Your task to perform on an android device: Search for a coffee table on Crate & Barrel Image 0: 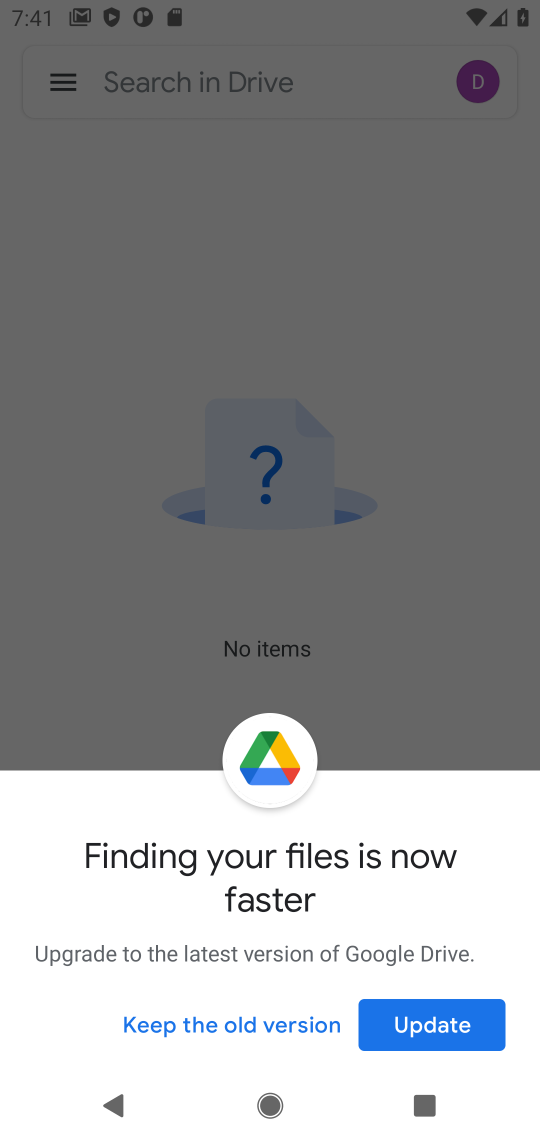
Step 0: press home button
Your task to perform on an android device: Search for a coffee table on Crate & Barrel Image 1: 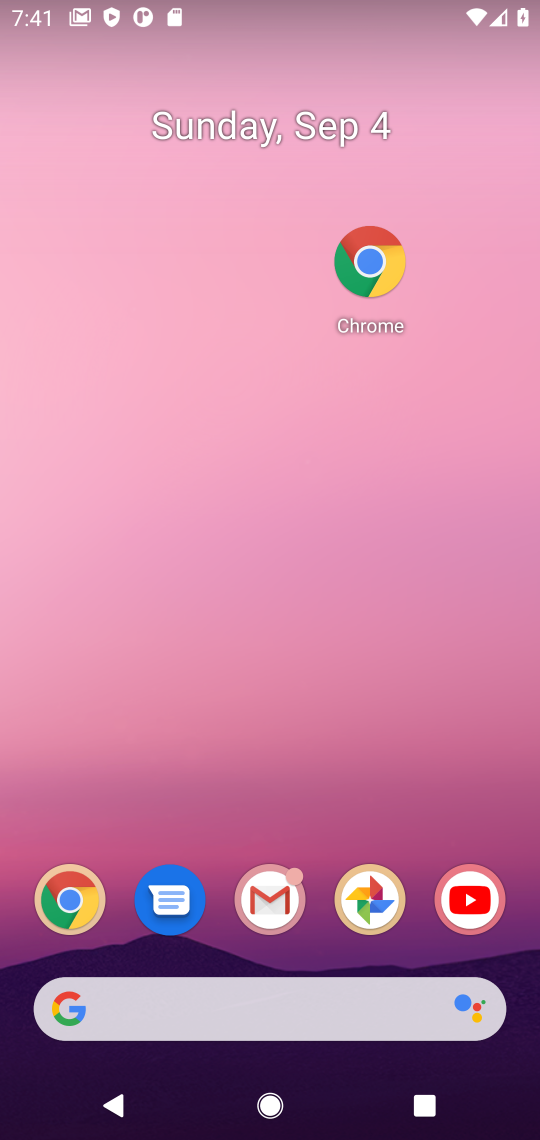
Step 1: click (367, 250)
Your task to perform on an android device: Search for a coffee table on Crate & Barrel Image 2: 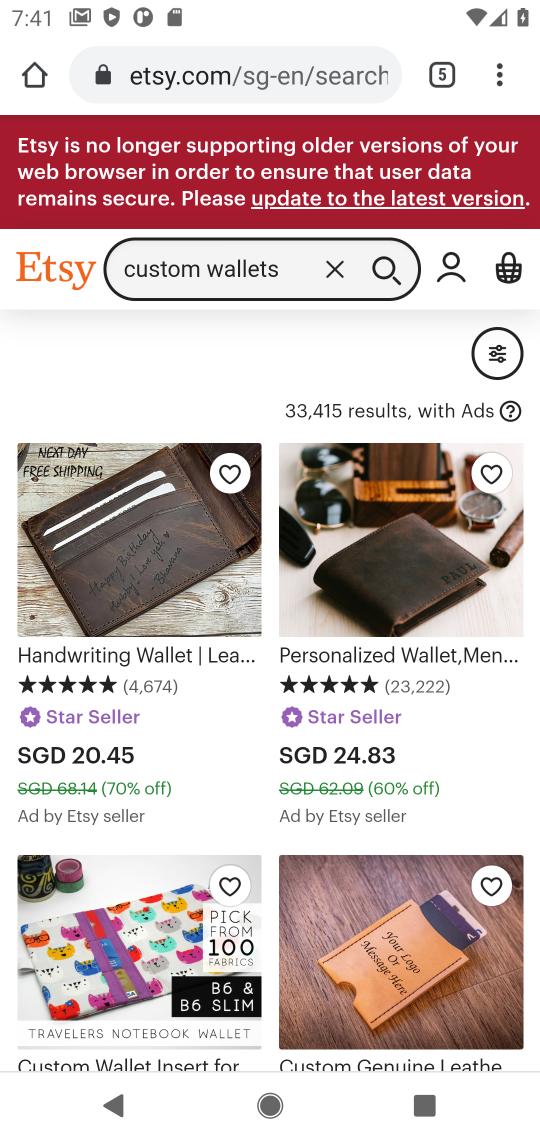
Step 2: click (433, 63)
Your task to perform on an android device: Search for a coffee table on Crate & Barrel Image 3: 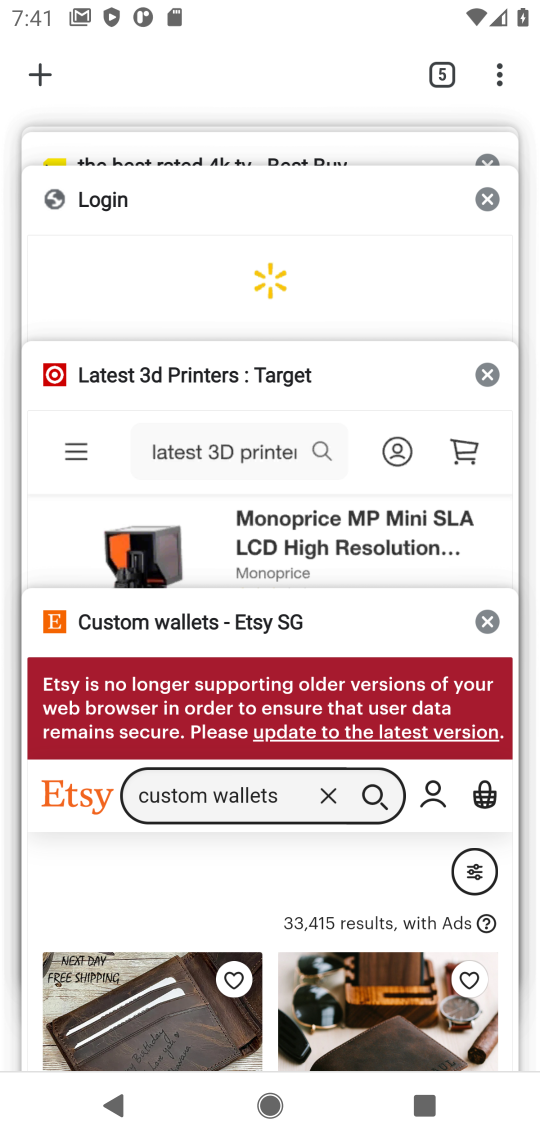
Step 3: click (33, 75)
Your task to perform on an android device: Search for a coffee table on Crate & Barrel Image 4: 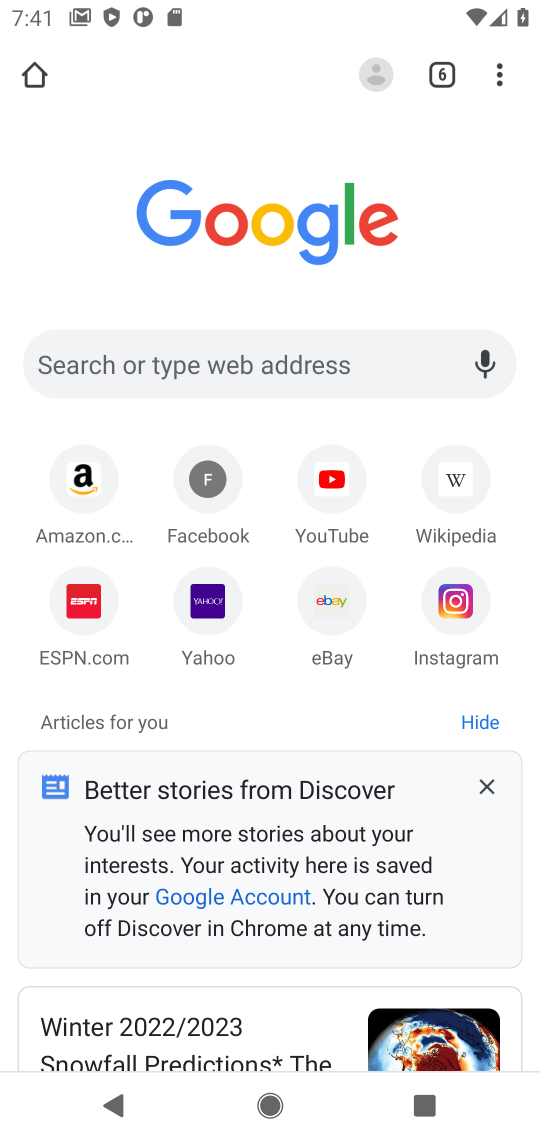
Step 4: click (188, 342)
Your task to perform on an android device: Search for a coffee table on Crate & Barrel Image 5: 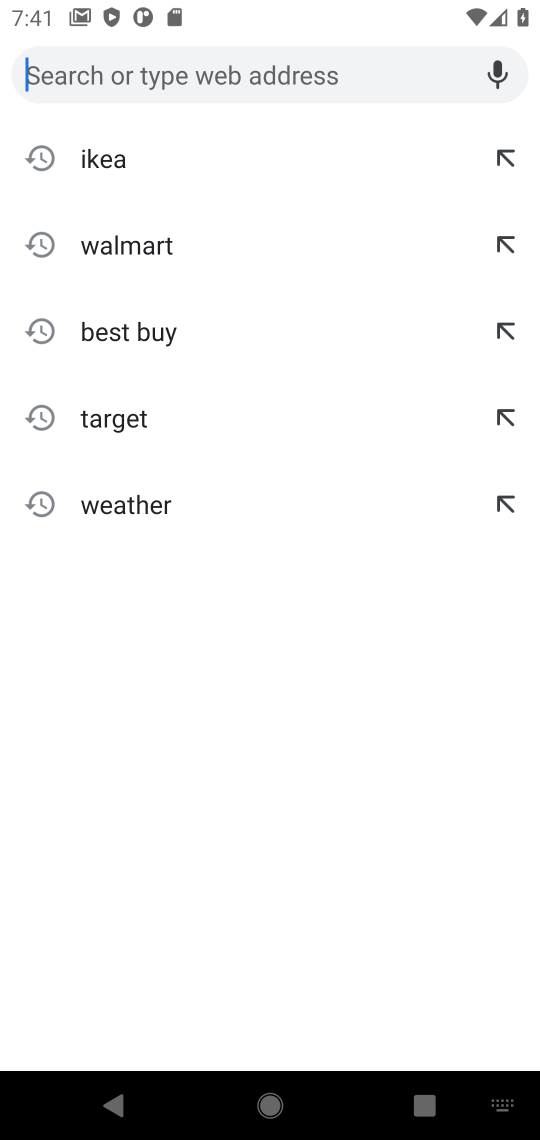
Step 5: type "crate & barel"
Your task to perform on an android device: Search for a coffee table on Crate & Barrel Image 6: 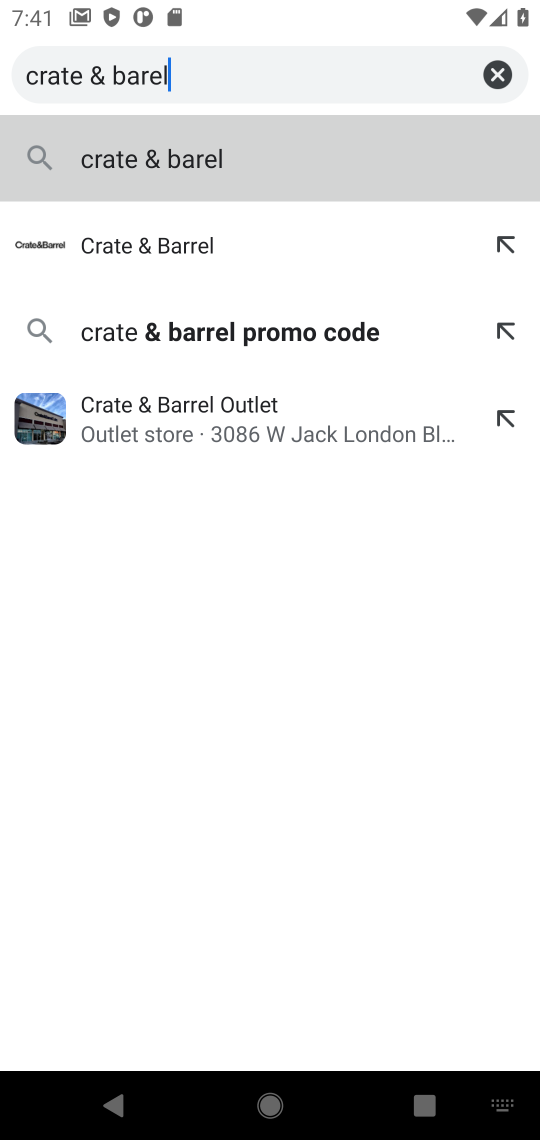
Step 6: click (191, 73)
Your task to perform on an android device: Search for a coffee table on Crate & Barrel Image 7: 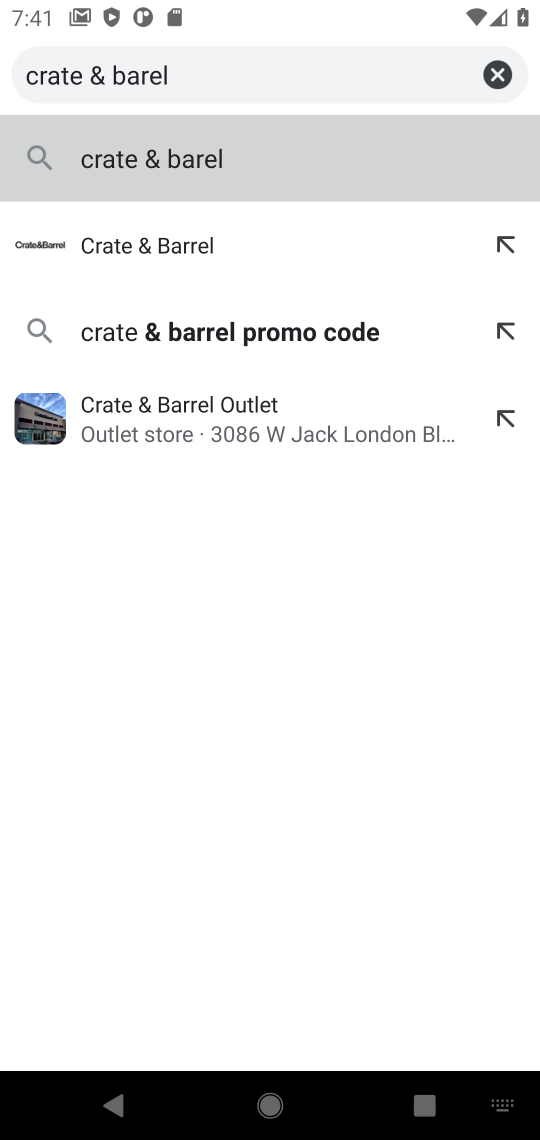
Step 7: click (160, 151)
Your task to perform on an android device: Search for a coffee table on Crate & Barrel Image 8: 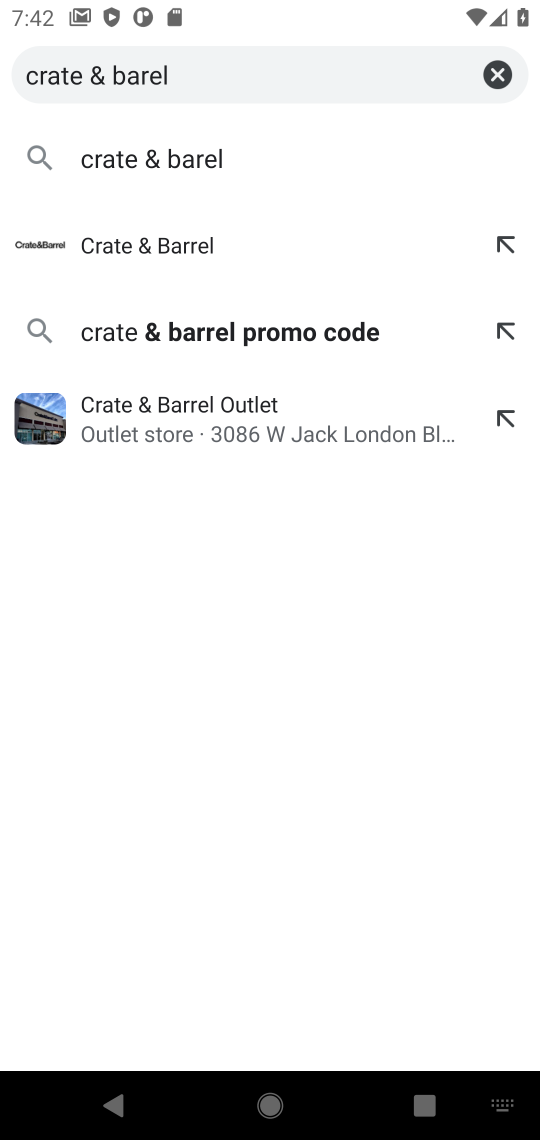
Step 8: click (177, 172)
Your task to perform on an android device: Search for a coffee table on Crate & Barrel Image 9: 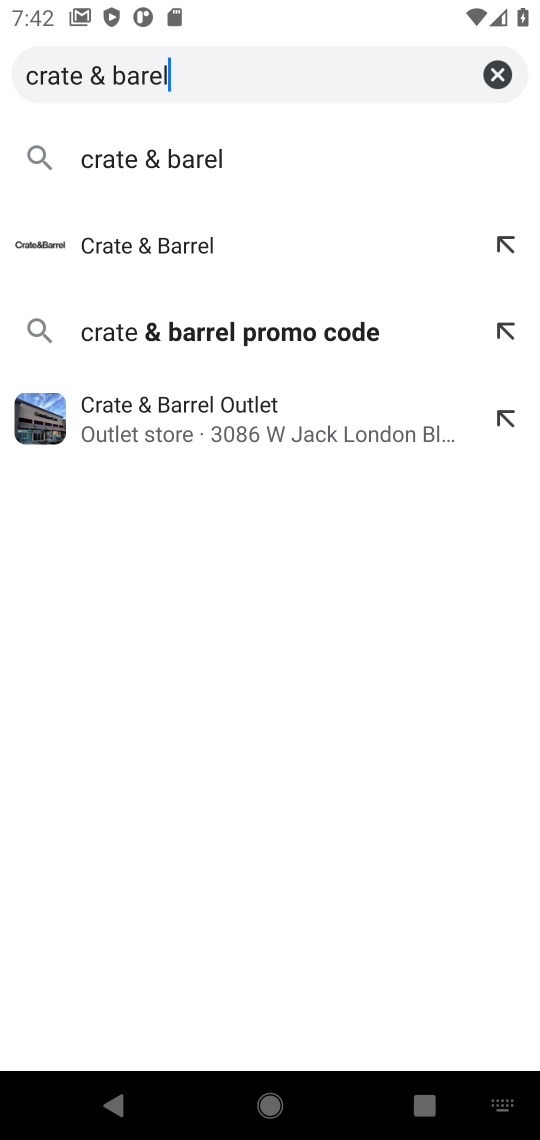
Step 9: click (136, 246)
Your task to perform on an android device: Search for a coffee table on Crate & Barrel Image 10: 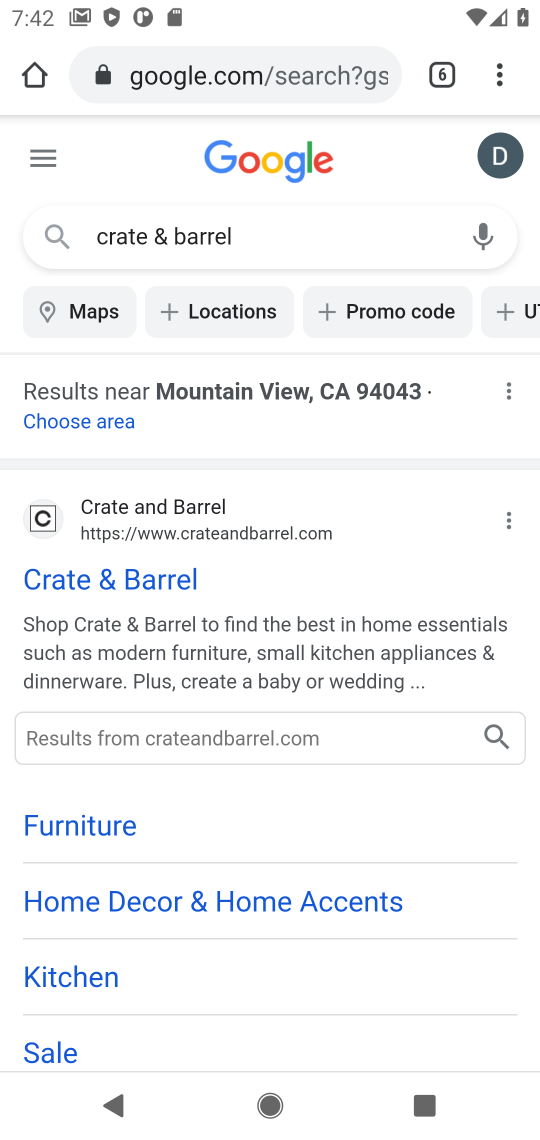
Step 10: click (70, 577)
Your task to perform on an android device: Search for a coffee table on Crate & Barrel Image 11: 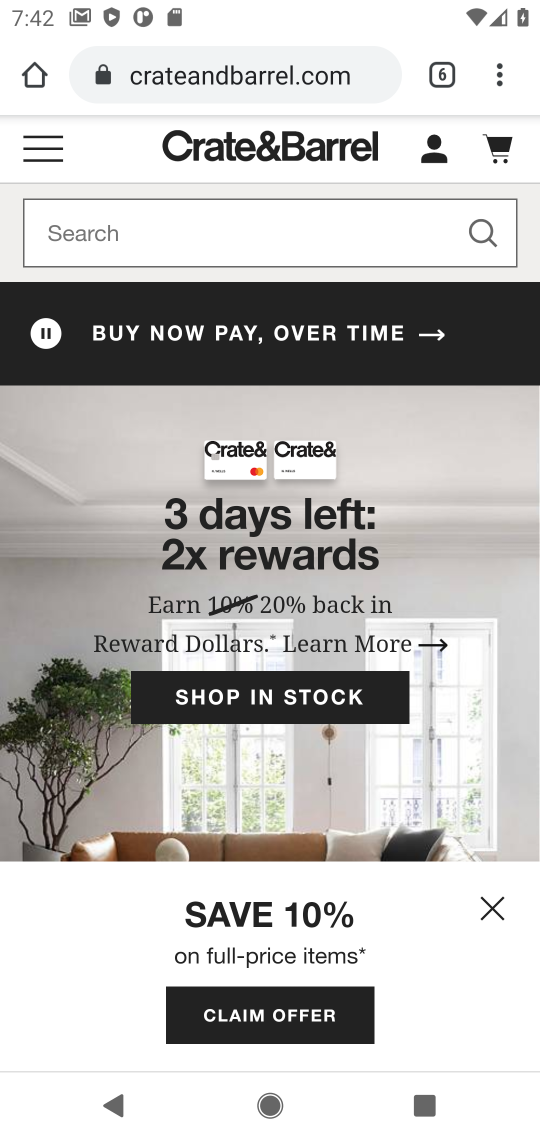
Step 11: click (225, 259)
Your task to perform on an android device: Search for a coffee table on Crate & Barrel Image 12: 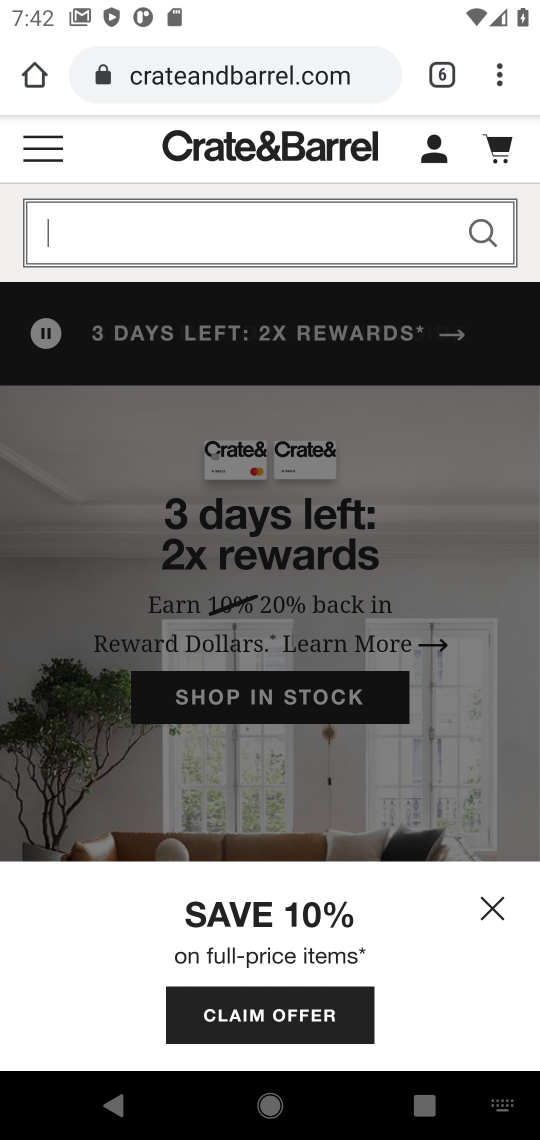
Step 12: type "coffe table"
Your task to perform on an android device: Search for a coffee table on Crate & Barrel Image 13: 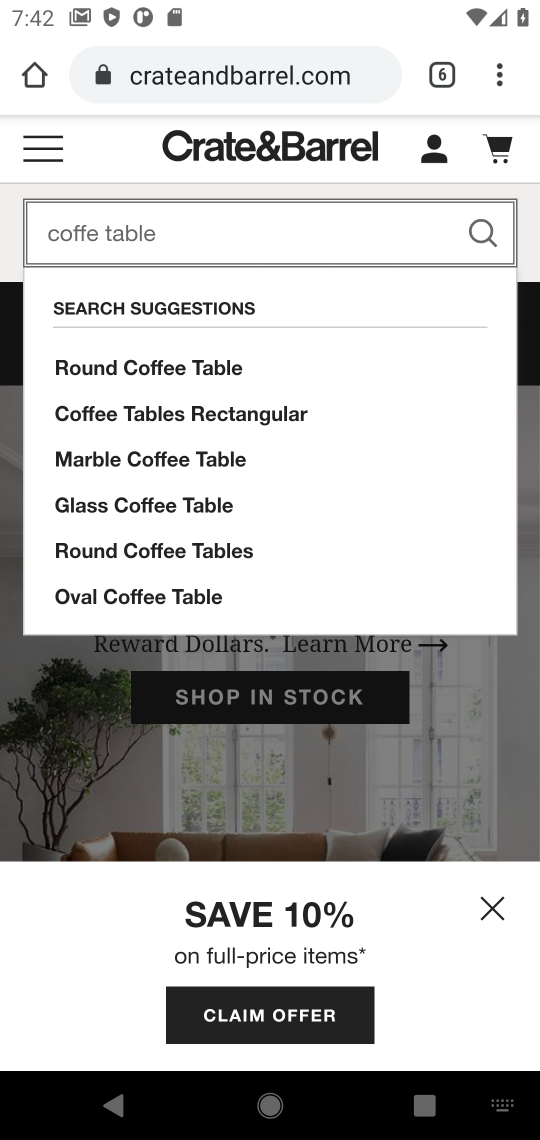
Step 13: click (490, 247)
Your task to perform on an android device: Search for a coffee table on Crate & Barrel Image 14: 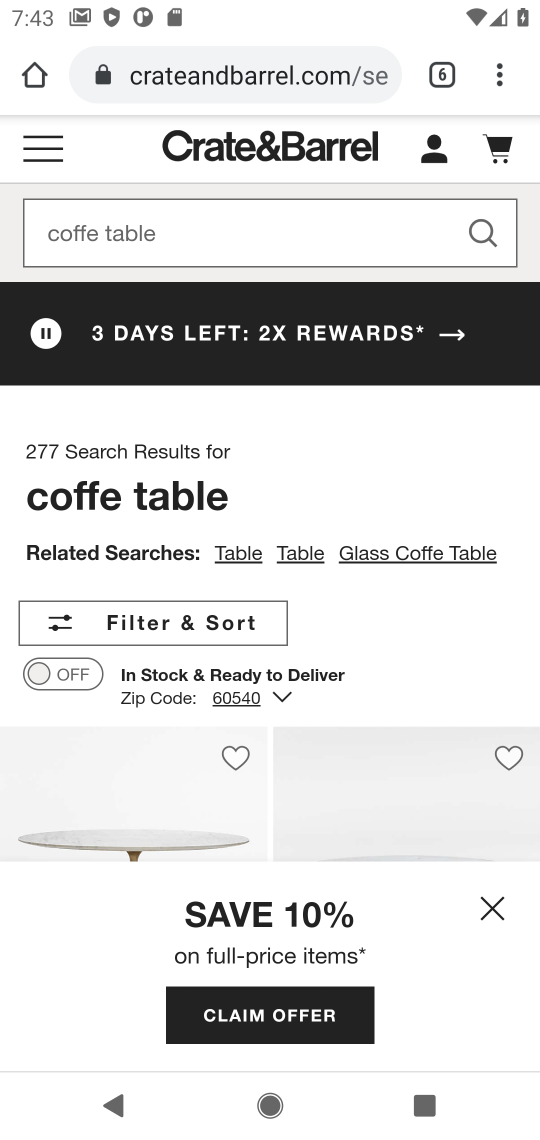
Step 14: task complete